Your task to perform on an android device: turn on wifi Image 0: 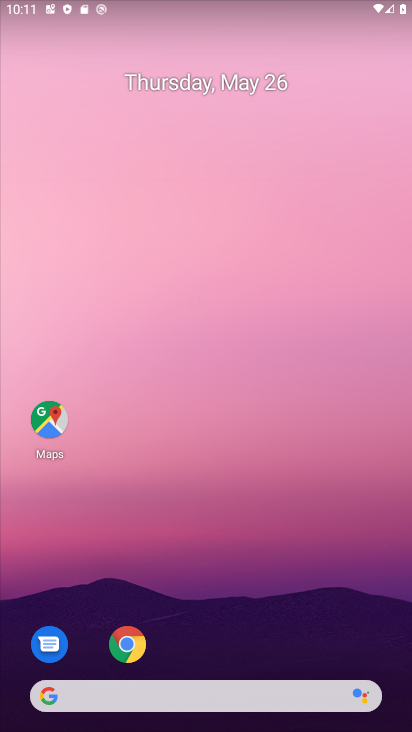
Step 0: drag from (364, 629) to (267, 49)
Your task to perform on an android device: turn on wifi Image 1: 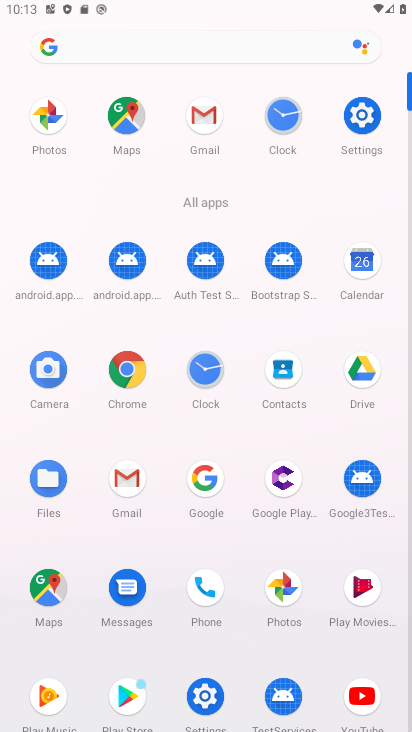
Step 1: task complete